Your task to perform on an android device: turn off location Image 0: 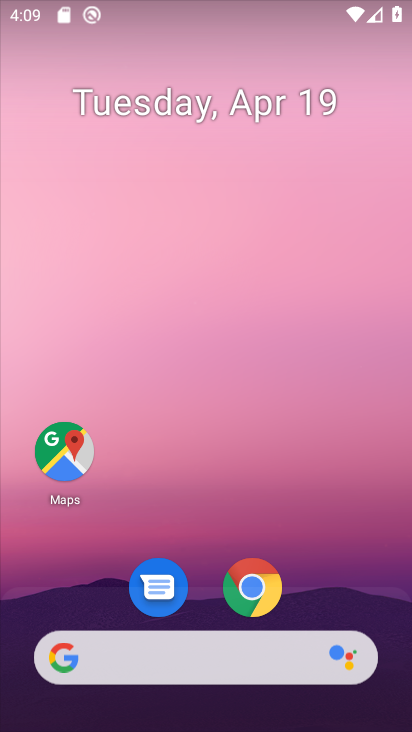
Step 0: drag from (327, 495) to (262, 6)
Your task to perform on an android device: turn off location Image 1: 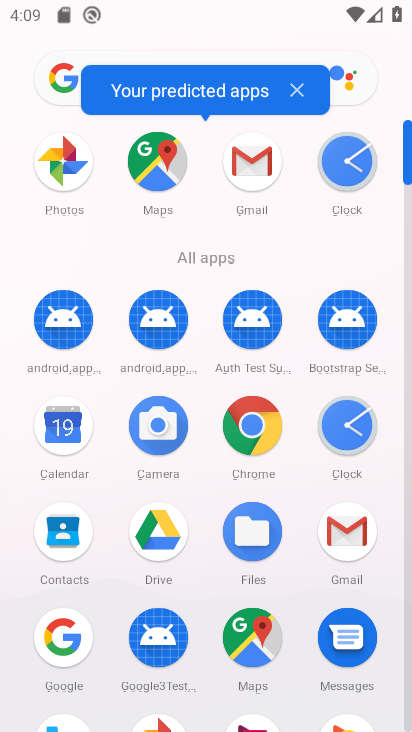
Step 1: drag from (8, 513) to (8, 269)
Your task to perform on an android device: turn off location Image 2: 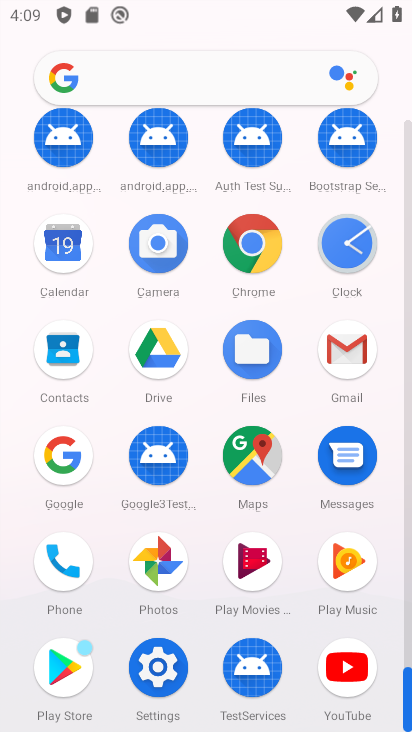
Step 2: click (154, 664)
Your task to perform on an android device: turn off location Image 3: 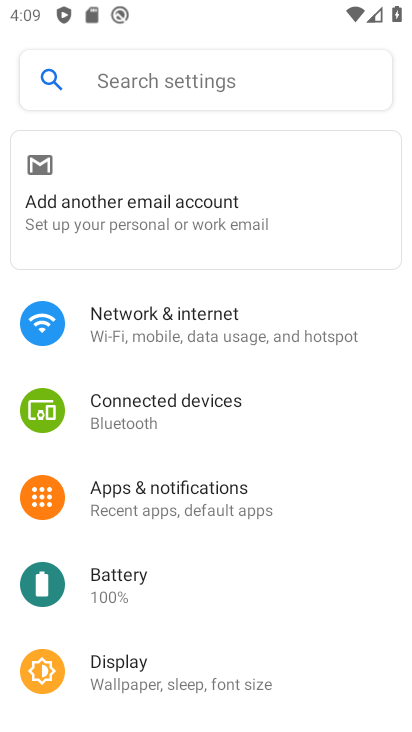
Step 3: drag from (282, 568) to (298, 202)
Your task to perform on an android device: turn off location Image 4: 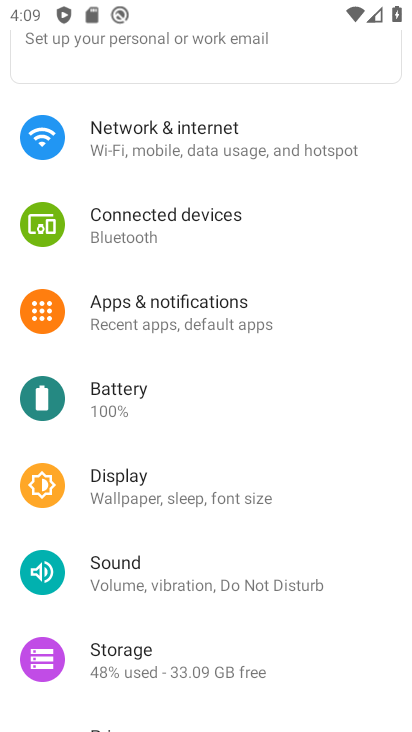
Step 4: drag from (236, 462) to (253, 203)
Your task to perform on an android device: turn off location Image 5: 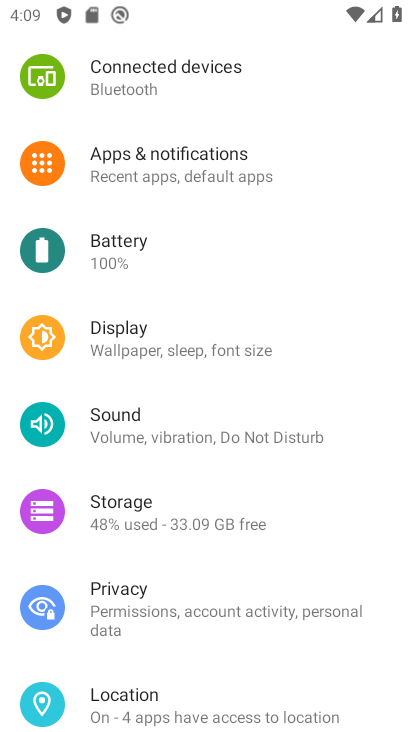
Step 5: drag from (258, 560) to (248, 247)
Your task to perform on an android device: turn off location Image 6: 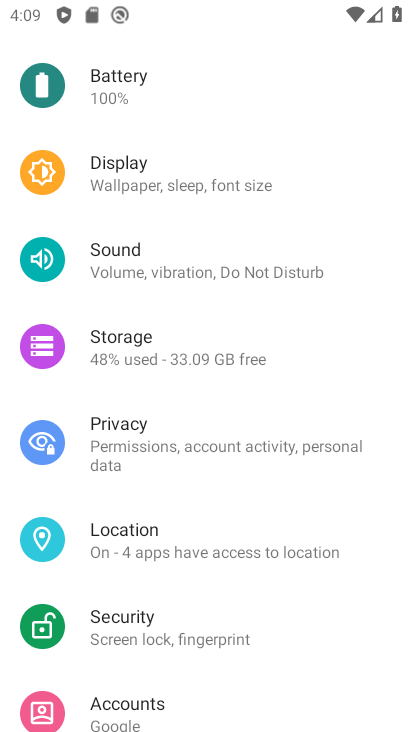
Step 6: click (219, 543)
Your task to perform on an android device: turn off location Image 7: 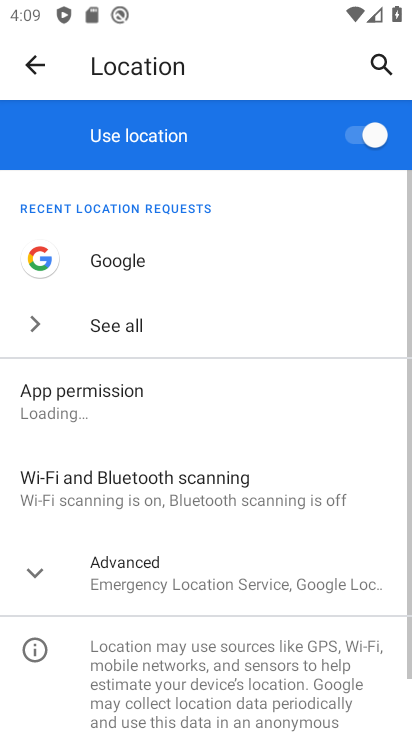
Step 7: click (360, 132)
Your task to perform on an android device: turn off location Image 8: 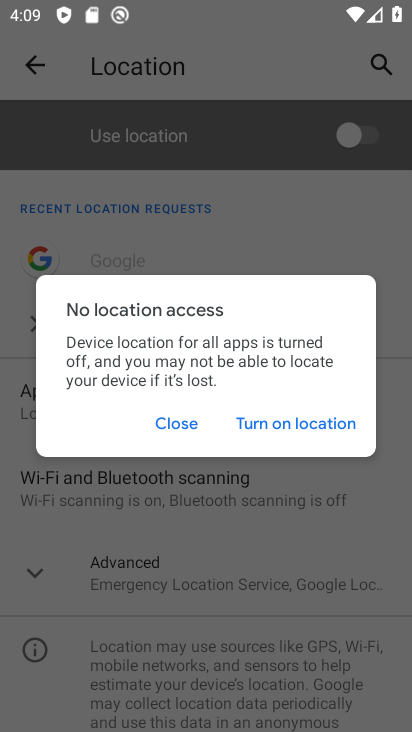
Step 8: click (196, 425)
Your task to perform on an android device: turn off location Image 9: 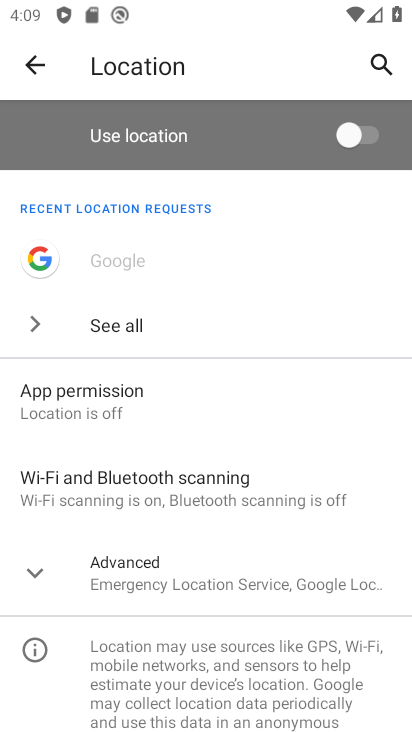
Step 9: task complete